Your task to perform on an android device: turn off airplane mode Image 0: 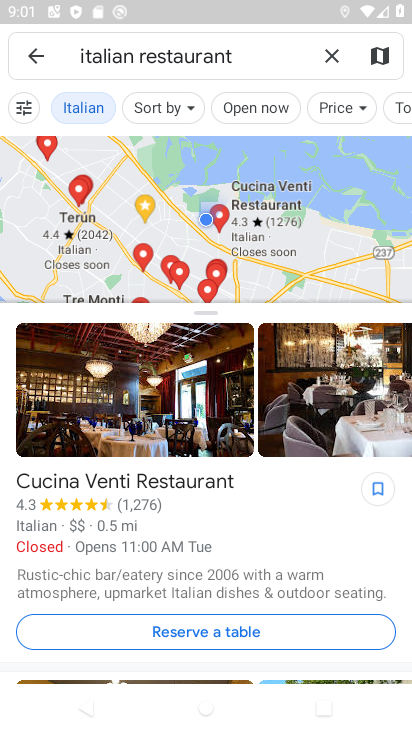
Step 0: drag from (228, 5) to (197, 461)
Your task to perform on an android device: turn off airplane mode Image 1: 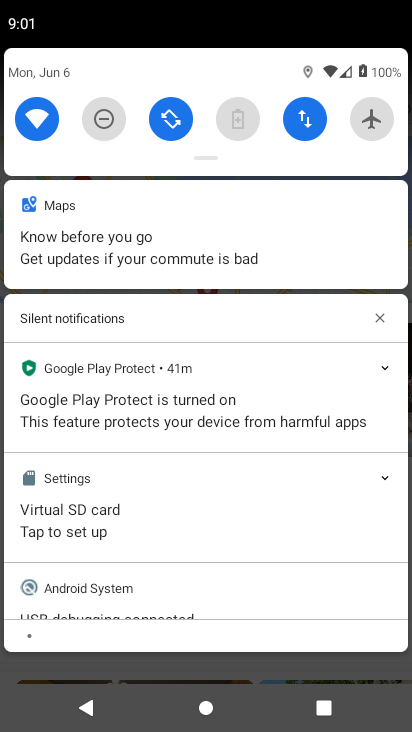
Step 1: task complete